Your task to perform on an android device: turn off sleep mode Image 0: 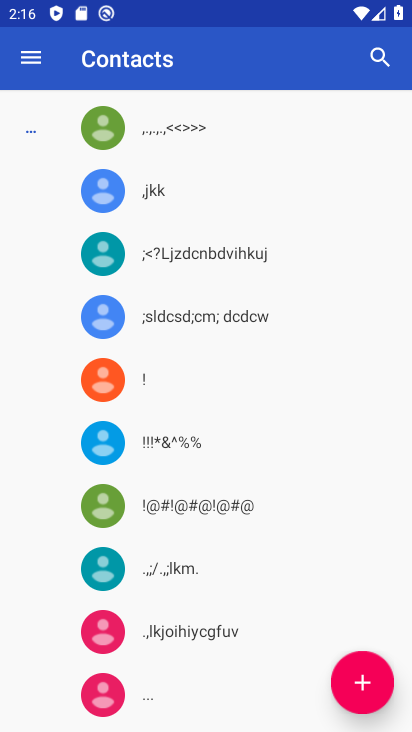
Step 0: press home button
Your task to perform on an android device: turn off sleep mode Image 1: 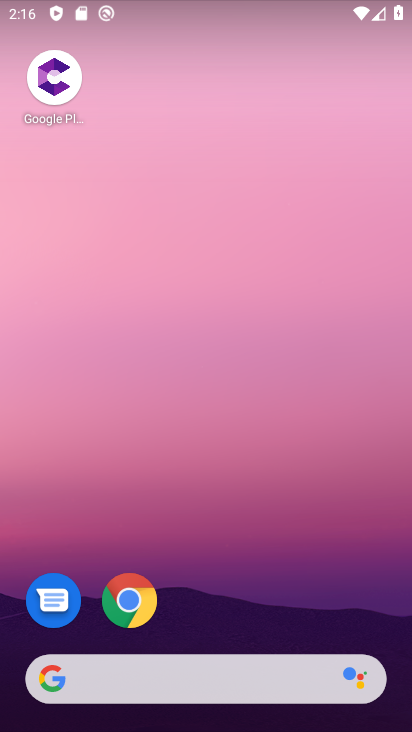
Step 1: drag from (200, 655) to (285, 193)
Your task to perform on an android device: turn off sleep mode Image 2: 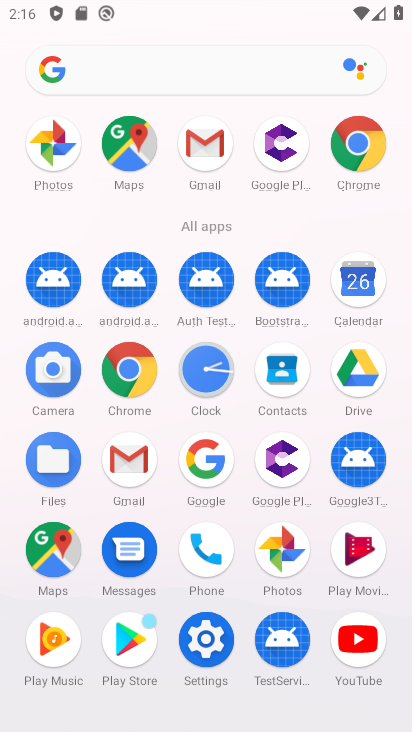
Step 2: drag from (169, 623) to (231, 456)
Your task to perform on an android device: turn off sleep mode Image 3: 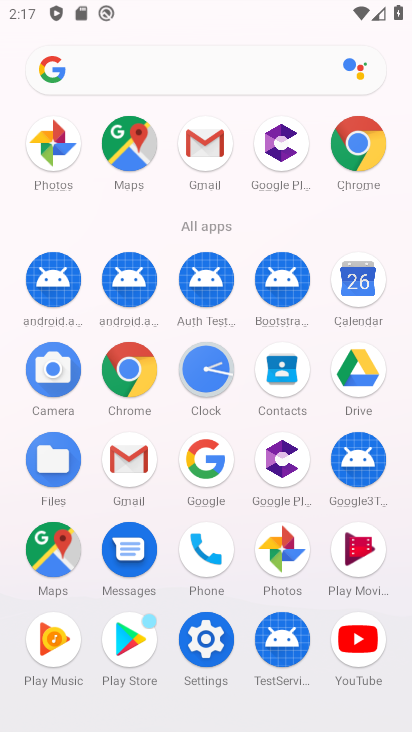
Step 3: click (196, 648)
Your task to perform on an android device: turn off sleep mode Image 4: 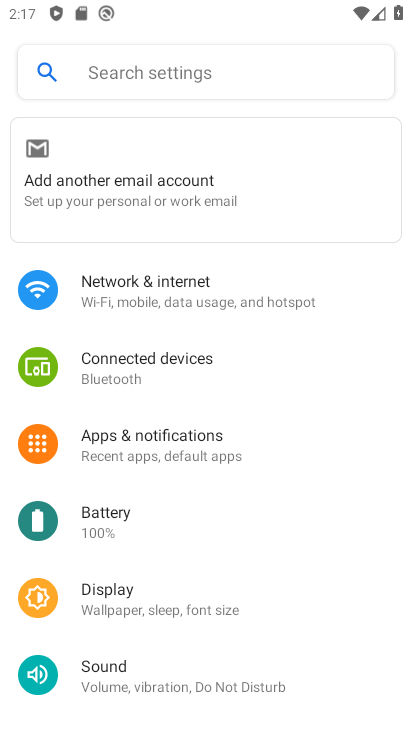
Step 4: click (121, 602)
Your task to perform on an android device: turn off sleep mode Image 5: 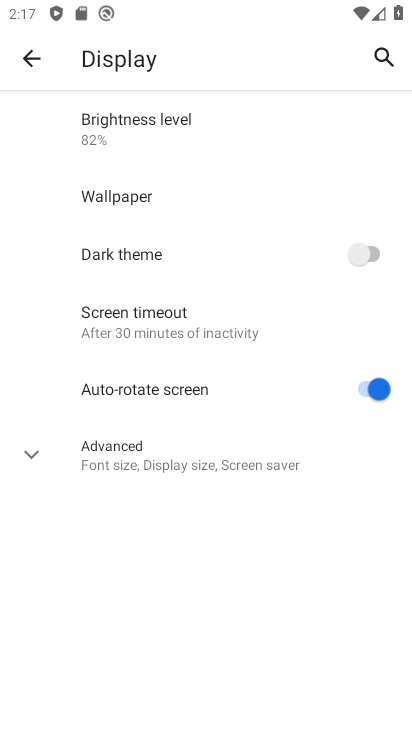
Step 5: click (212, 455)
Your task to perform on an android device: turn off sleep mode Image 6: 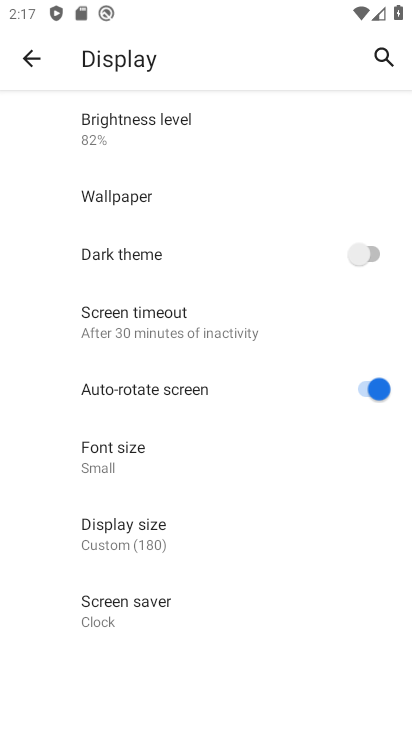
Step 6: task complete